Your task to perform on an android device: set default search engine in the chrome app Image 0: 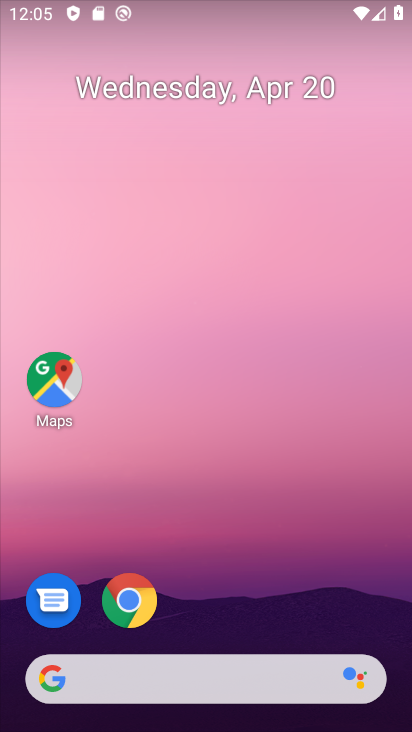
Step 0: drag from (317, 579) to (169, 20)
Your task to perform on an android device: set default search engine in the chrome app Image 1: 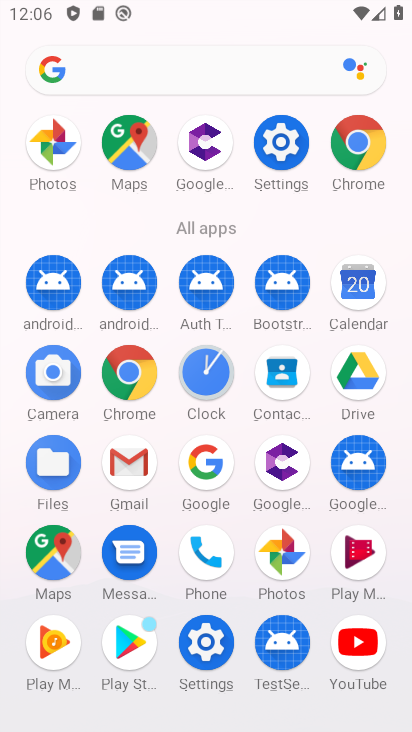
Step 1: click (123, 368)
Your task to perform on an android device: set default search engine in the chrome app Image 2: 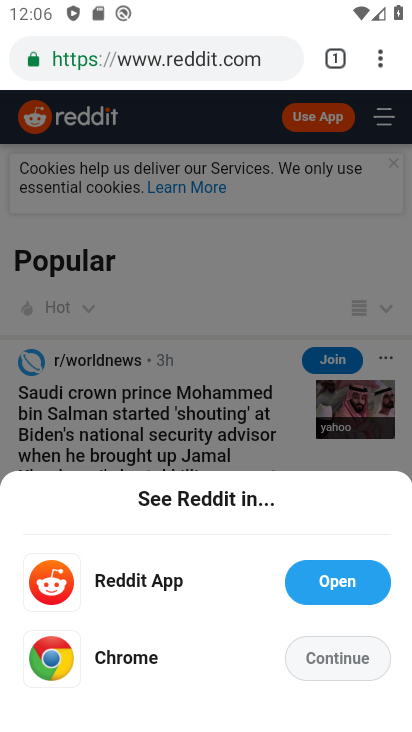
Step 2: drag from (381, 58) to (215, 614)
Your task to perform on an android device: set default search engine in the chrome app Image 3: 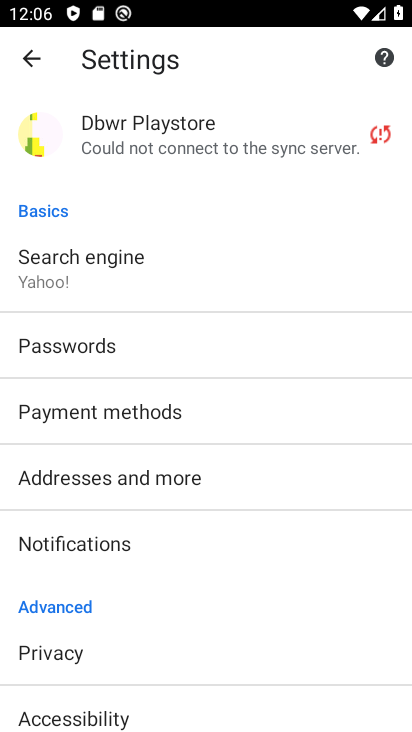
Step 3: drag from (247, 604) to (216, 129)
Your task to perform on an android device: set default search engine in the chrome app Image 4: 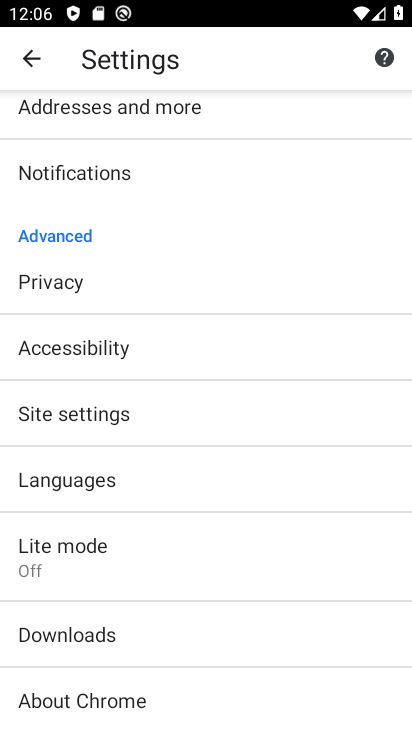
Step 4: click (79, 417)
Your task to perform on an android device: set default search engine in the chrome app Image 5: 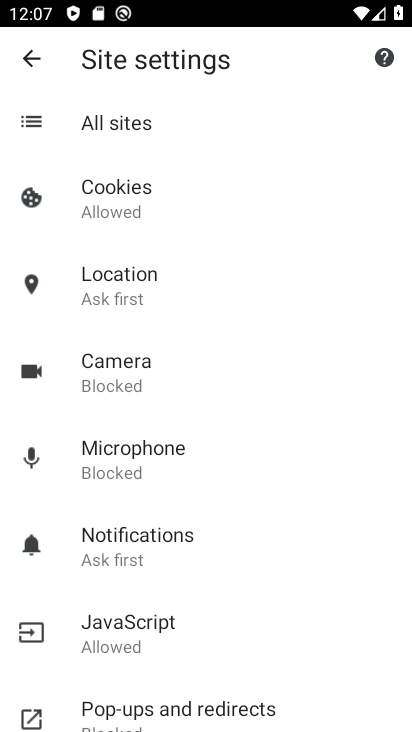
Step 5: drag from (216, 505) to (222, 143)
Your task to perform on an android device: set default search engine in the chrome app Image 6: 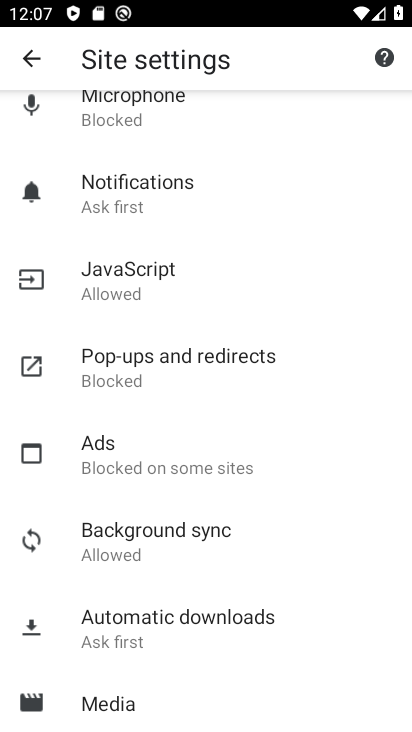
Step 6: drag from (256, 243) to (265, 456)
Your task to perform on an android device: set default search engine in the chrome app Image 7: 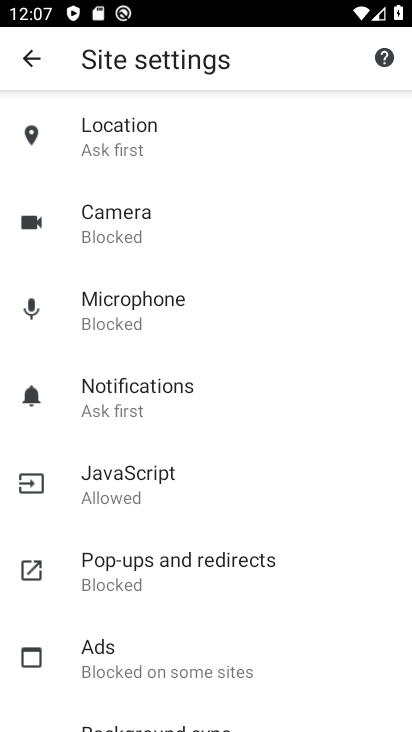
Step 7: drag from (281, 160) to (273, 364)
Your task to perform on an android device: set default search engine in the chrome app Image 8: 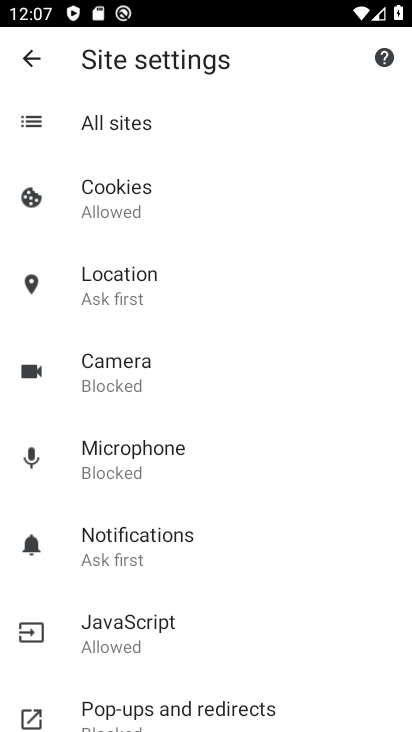
Step 8: click (28, 61)
Your task to perform on an android device: set default search engine in the chrome app Image 9: 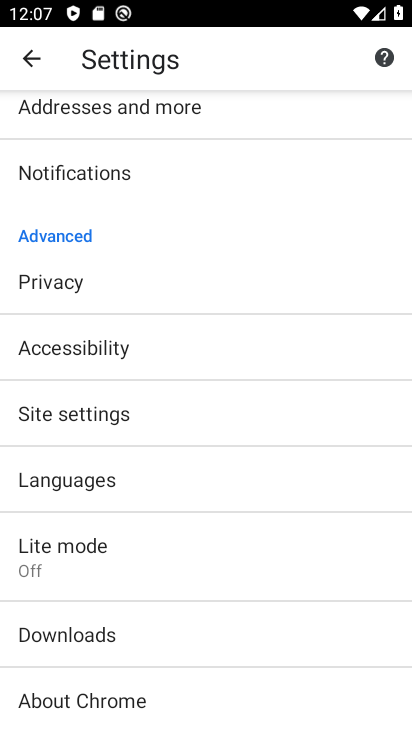
Step 9: drag from (175, 269) to (175, 531)
Your task to perform on an android device: set default search engine in the chrome app Image 10: 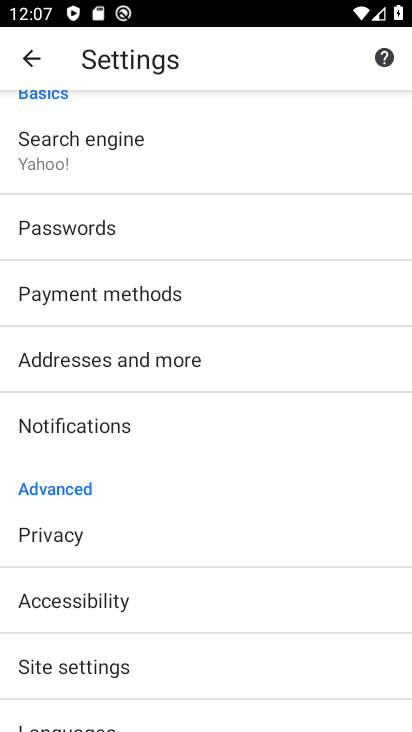
Step 10: click (141, 137)
Your task to perform on an android device: set default search engine in the chrome app Image 11: 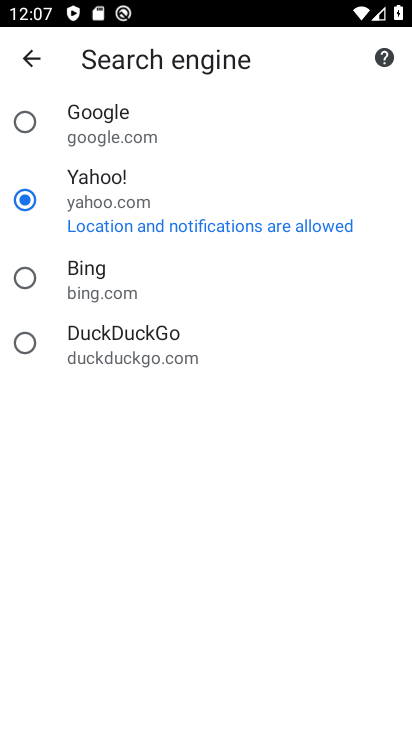
Step 11: click (177, 128)
Your task to perform on an android device: set default search engine in the chrome app Image 12: 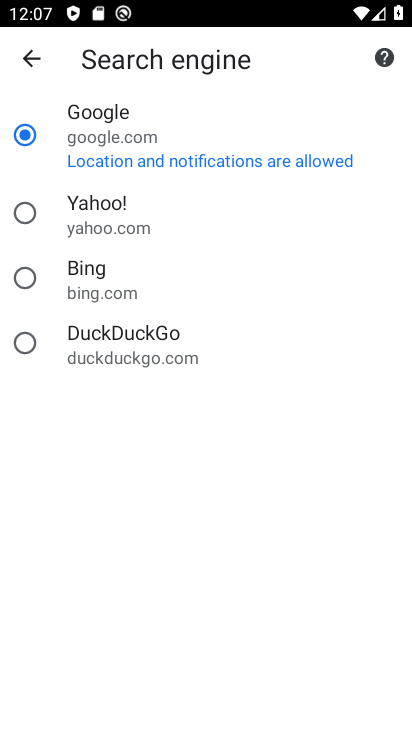
Step 12: task complete